Your task to perform on an android device: turn off javascript in the chrome app Image 0: 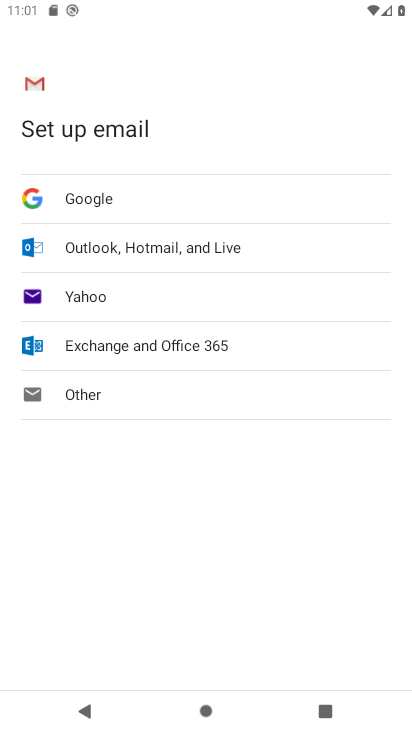
Step 0: press home button
Your task to perform on an android device: turn off javascript in the chrome app Image 1: 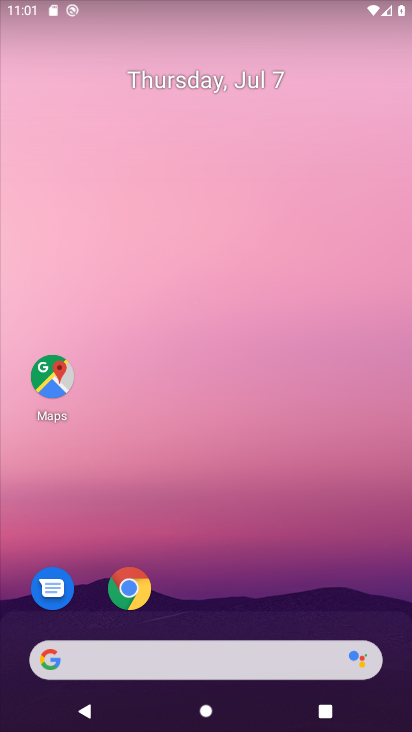
Step 1: drag from (295, 626) to (409, 0)
Your task to perform on an android device: turn off javascript in the chrome app Image 2: 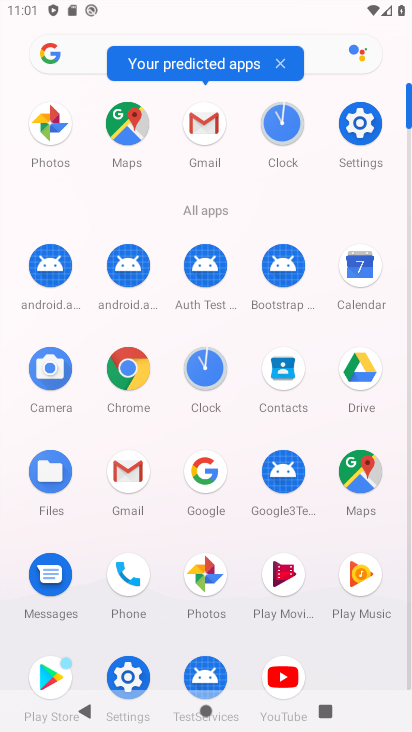
Step 2: click (116, 353)
Your task to perform on an android device: turn off javascript in the chrome app Image 3: 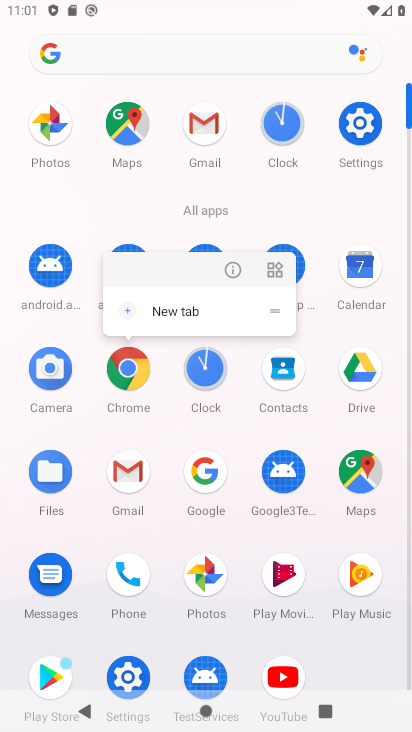
Step 3: click (145, 392)
Your task to perform on an android device: turn off javascript in the chrome app Image 4: 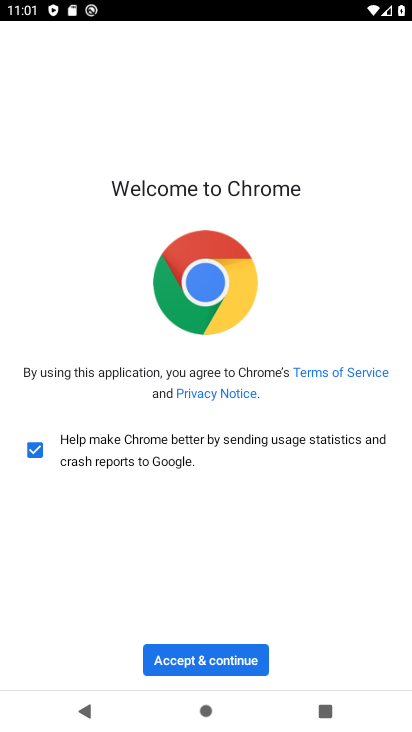
Step 4: click (237, 659)
Your task to perform on an android device: turn off javascript in the chrome app Image 5: 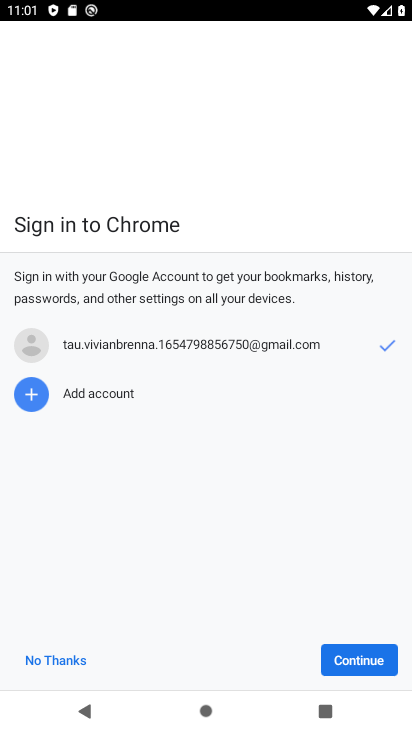
Step 5: click (361, 645)
Your task to perform on an android device: turn off javascript in the chrome app Image 6: 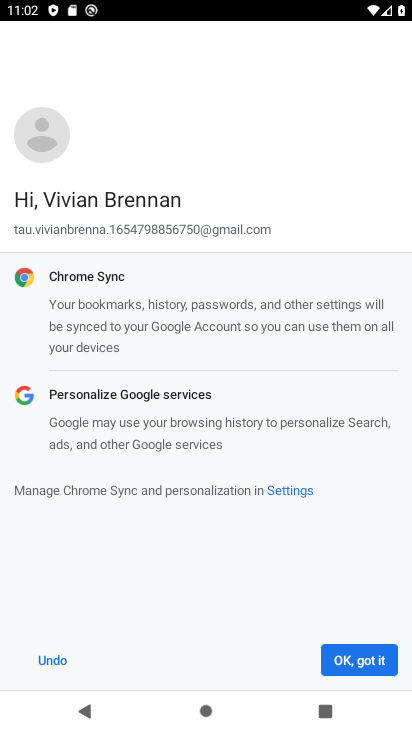
Step 6: click (376, 657)
Your task to perform on an android device: turn off javascript in the chrome app Image 7: 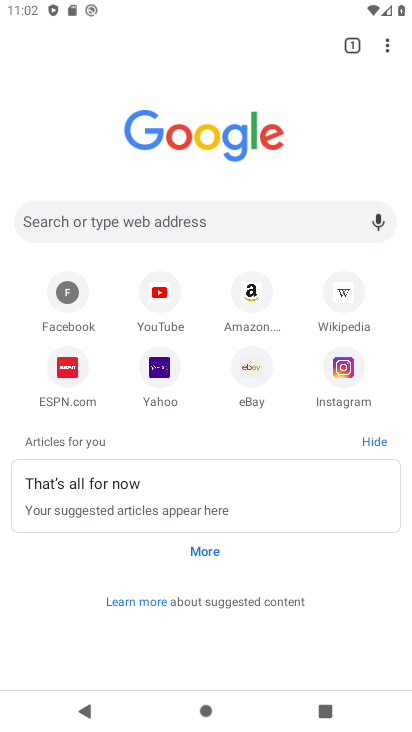
Step 7: drag from (397, 42) to (274, 366)
Your task to perform on an android device: turn off javascript in the chrome app Image 8: 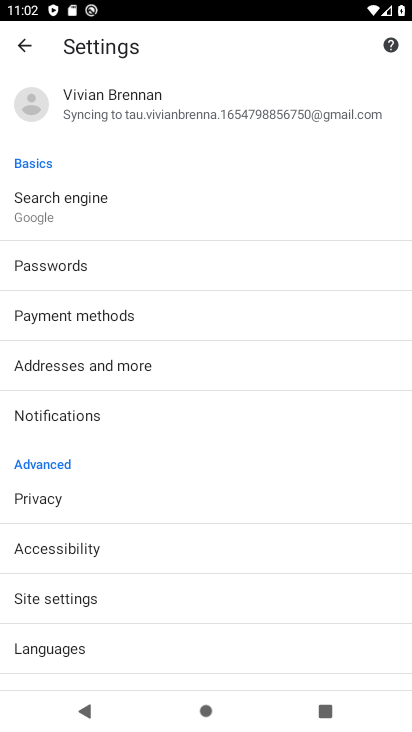
Step 8: click (120, 601)
Your task to perform on an android device: turn off javascript in the chrome app Image 9: 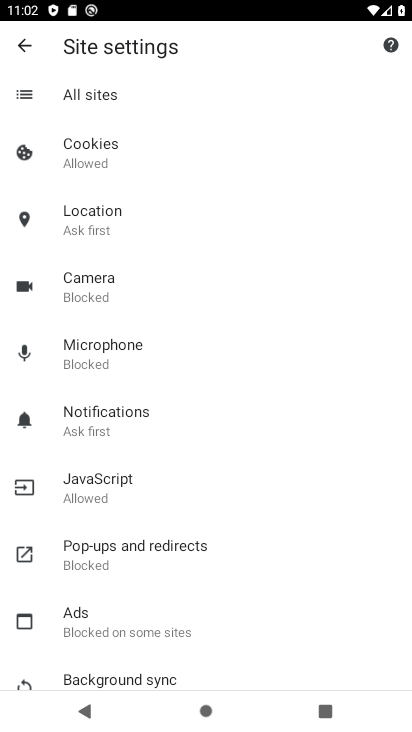
Step 9: click (130, 471)
Your task to perform on an android device: turn off javascript in the chrome app Image 10: 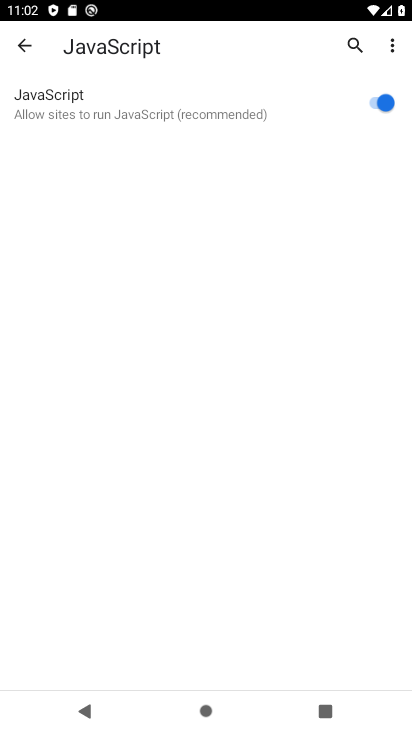
Step 10: click (370, 99)
Your task to perform on an android device: turn off javascript in the chrome app Image 11: 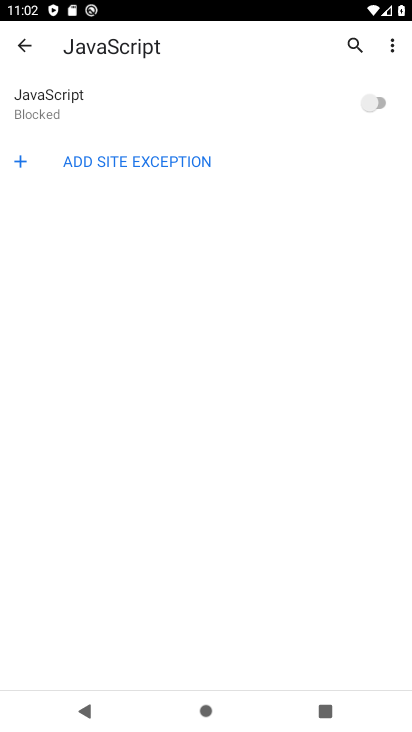
Step 11: task complete